Your task to perform on an android device: Open calendar and show me the fourth week of next month Image 0: 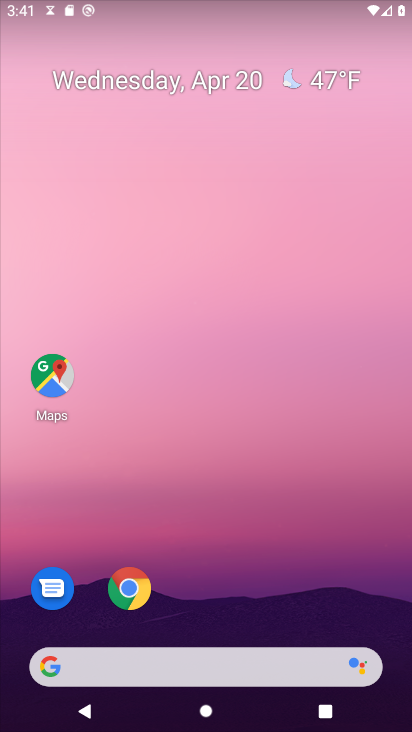
Step 0: drag from (264, 600) to (254, 29)
Your task to perform on an android device: Open calendar and show me the fourth week of next month Image 1: 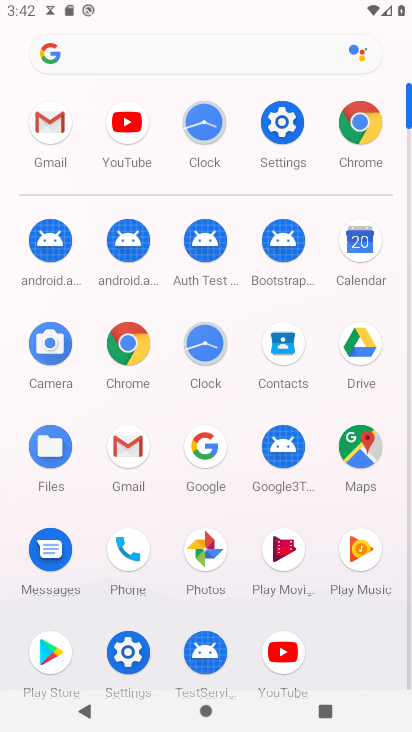
Step 1: click (357, 252)
Your task to perform on an android device: Open calendar and show me the fourth week of next month Image 2: 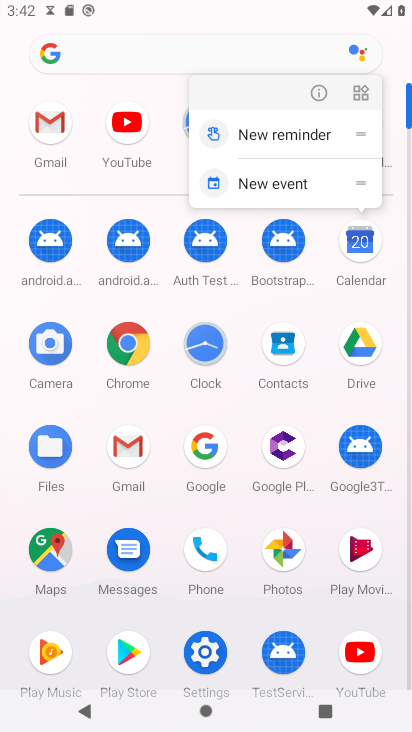
Step 2: click (357, 251)
Your task to perform on an android device: Open calendar and show me the fourth week of next month Image 3: 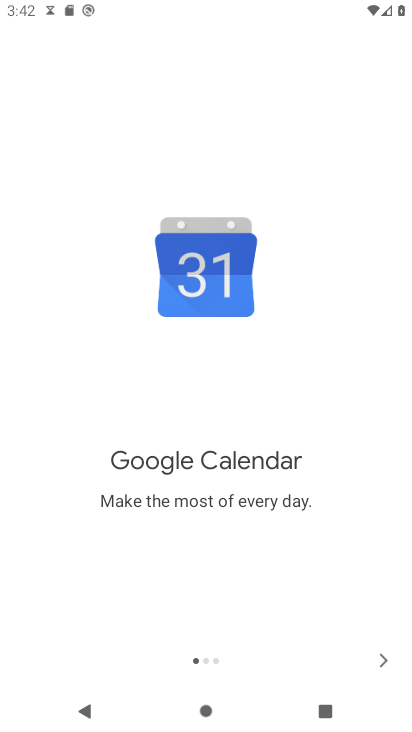
Step 3: click (386, 658)
Your task to perform on an android device: Open calendar and show me the fourth week of next month Image 4: 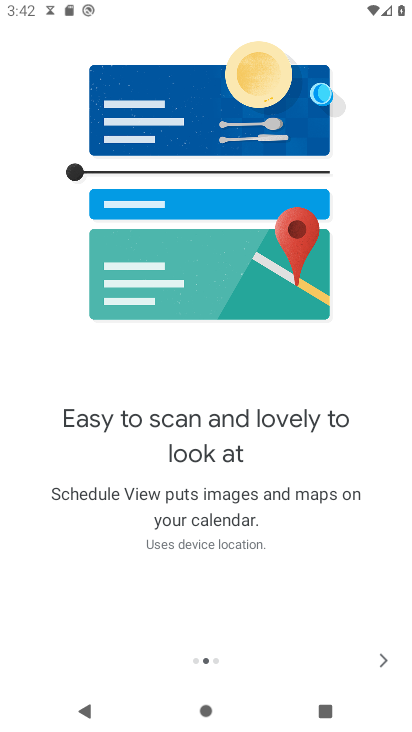
Step 4: click (383, 653)
Your task to perform on an android device: Open calendar and show me the fourth week of next month Image 5: 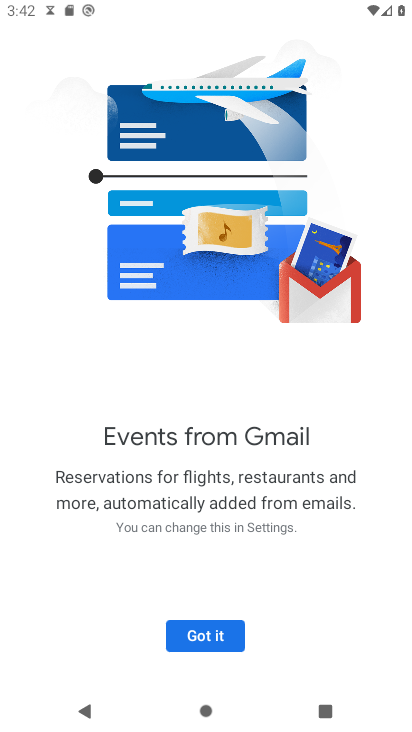
Step 5: click (186, 637)
Your task to perform on an android device: Open calendar and show me the fourth week of next month Image 6: 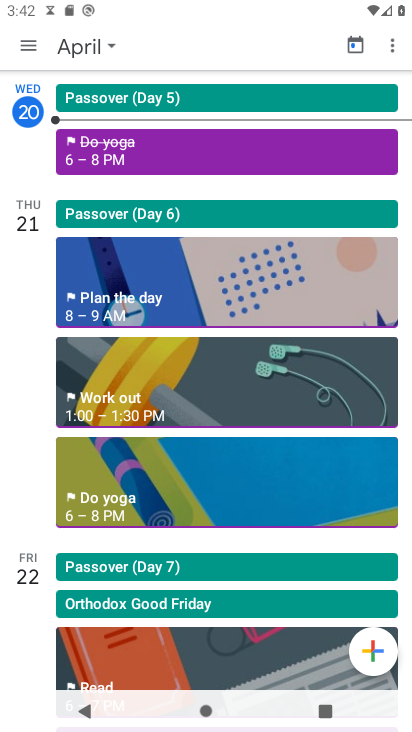
Step 6: click (95, 47)
Your task to perform on an android device: Open calendar and show me the fourth week of next month Image 7: 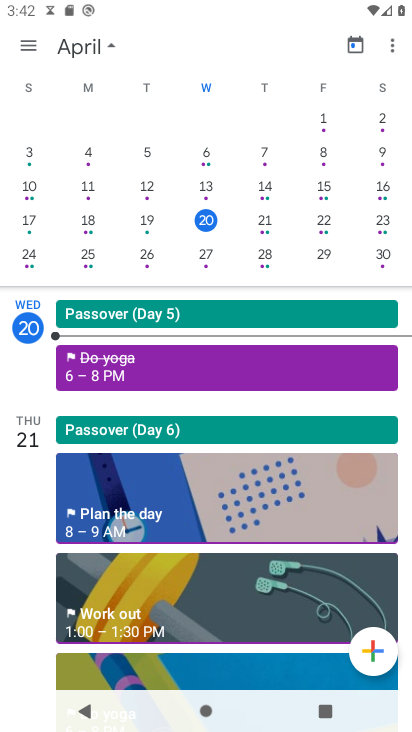
Step 7: drag from (345, 196) to (18, 215)
Your task to perform on an android device: Open calendar and show me the fourth week of next month Image 8: 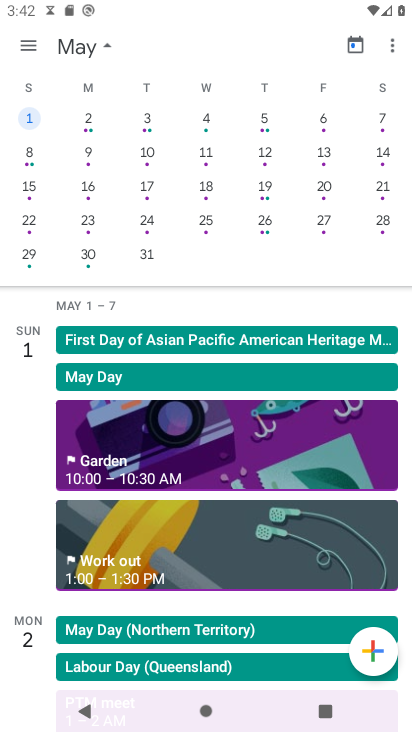
Step 8: click (42, 224)
Your task to perform on an android device: Open calendar and show me the fourth week of next month Image 9: 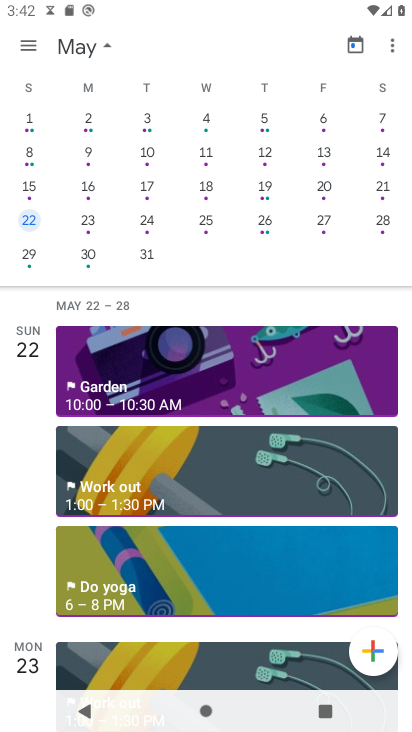
Step 9: task complete